Your task to perform on an android device: make emails show in primary in the gmail app Image 0: 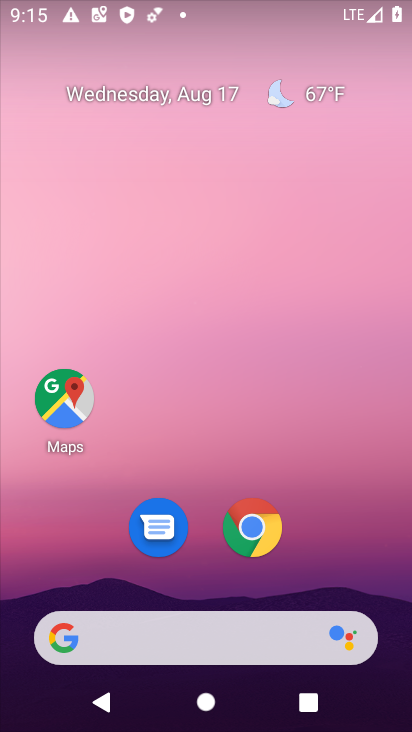
Step 0: drag from (199, 586) to (192, 172)
Your task to perform on an android device: make emails show in primary in the gmail app Image 1: 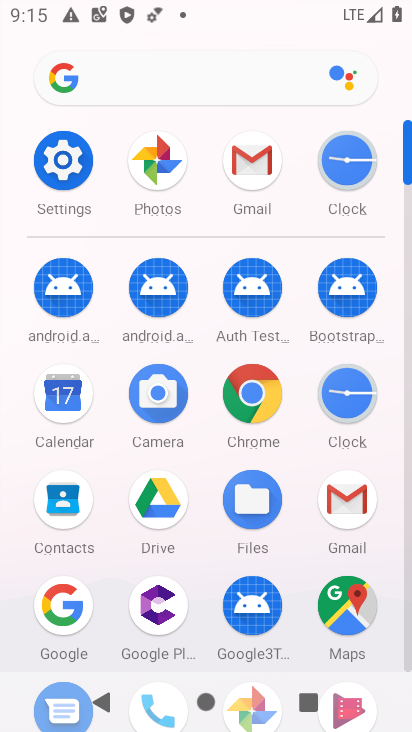
Step 1: click (237, 152)
Your task to perform on an android device: make emails show in primary in the gmail app Image 2: 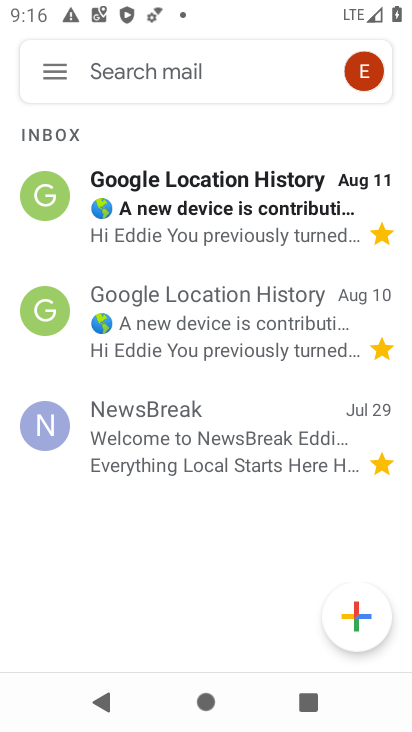
Step 2: click (67, 77)
Your task to perform on an android device: make emails show in primary in the gmail app Image 3: 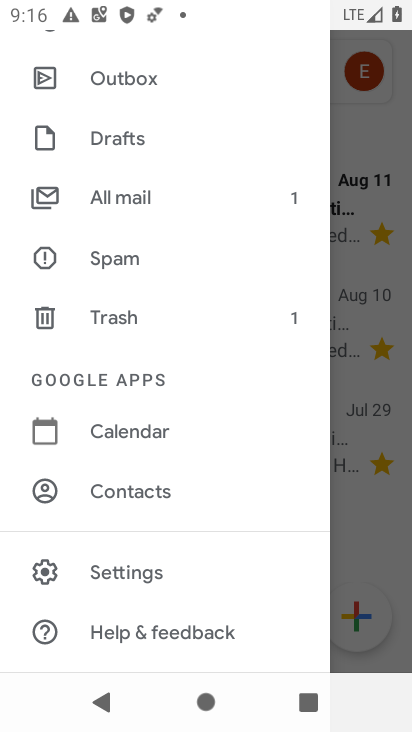
Step 3: task complete